Your task to perform on an android device: turn off data saver in the chrome app Image 0: 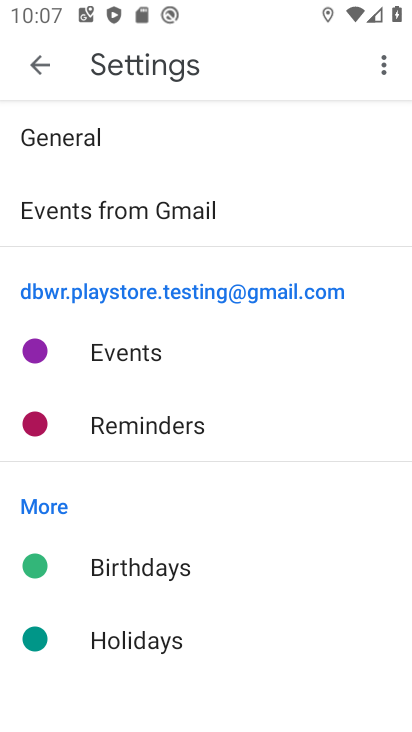
Step 0: press home button
Your task to perform on an android device: turn off data saver in the chrome app Image 1: 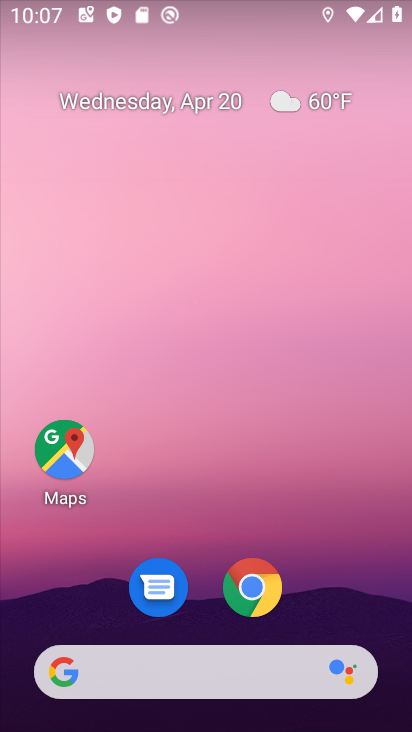
Step 1: click (255, 600)
Your task to perform on an android device: turn off data saver in the chrome app Image 2: 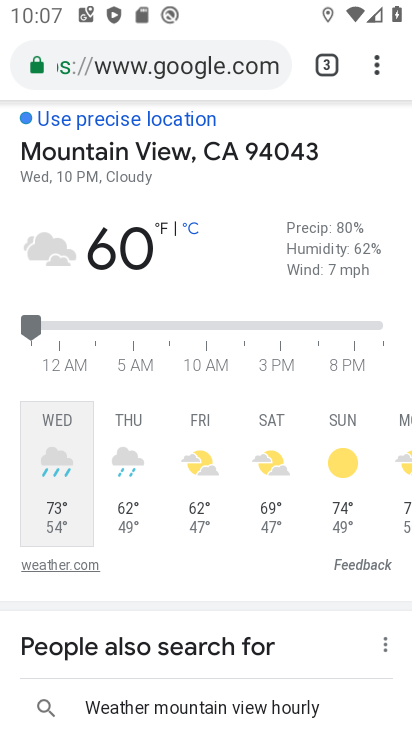
Step 2: drag from (376, 65) to (188, 641)
Your task to perform on an android device: turn off data saver in the chrome app Image 3: 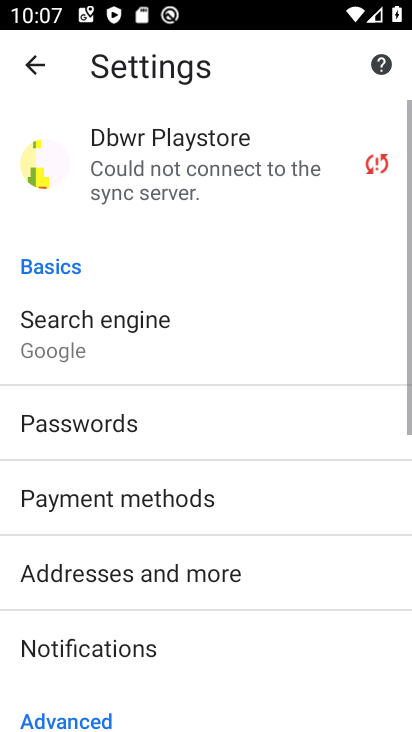
Step 3: drag from (263, 648) to (235, 205)
Your task to perform on an android device: turn off data saver in the chrome app Image 4: 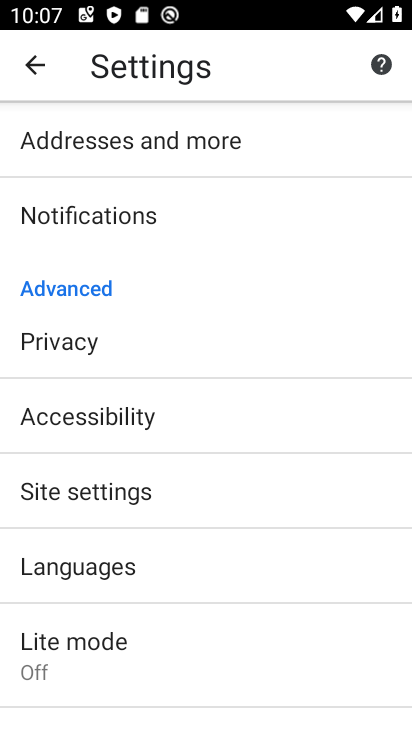
Step 4: click (56, 655)
Your task to perform on an android device: turn off data saver in the chrome app Image 5: 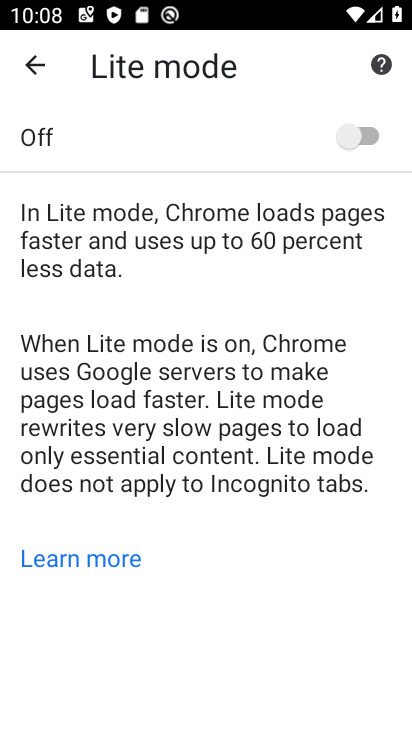
Step 5: task complete